Your task to perform on an android device: Open CNN.com Image 0: 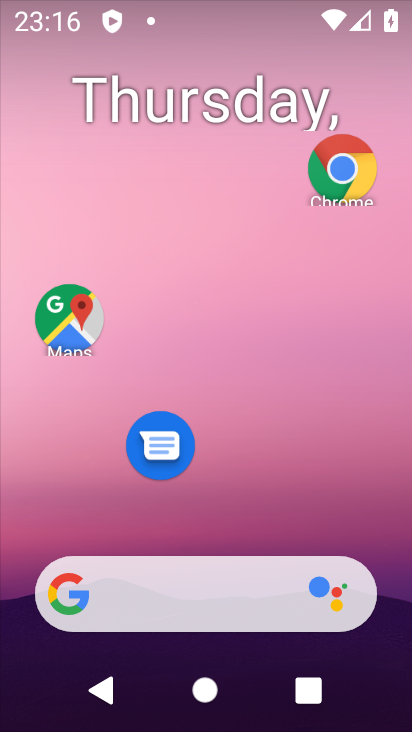
Step 0: click (256, 120)
Your task to perform on an android device: Open CNN.com Image 1: 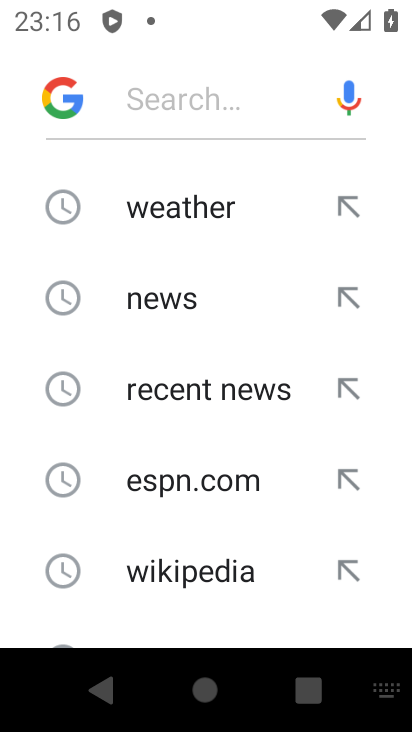
Step 1: drag from (145, 550) to (157, 126)
Your task to perform on an android device: Open CNN.com Image 2: 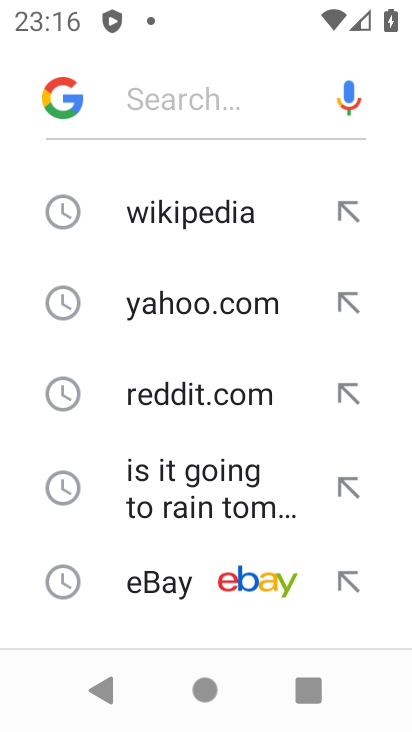
Step 2: drag from (219, 480) to (270, 98)
Your task to perform on an android device: Open CNN.com Image 3: 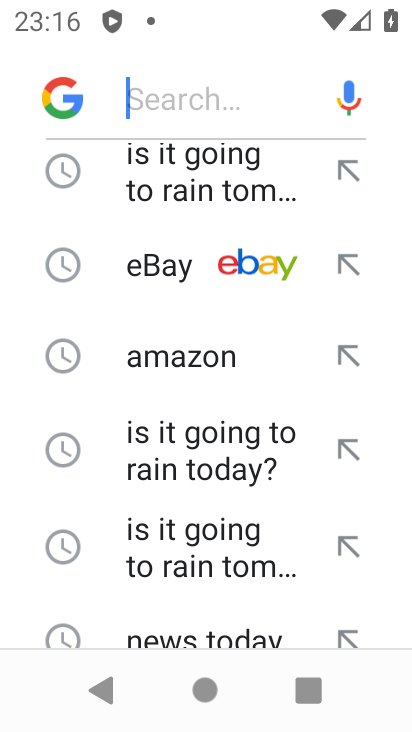
Step 3: drag from (174, 544) to (297, 111)
Your task to perform on an android device: Open CNN.com Image 4: 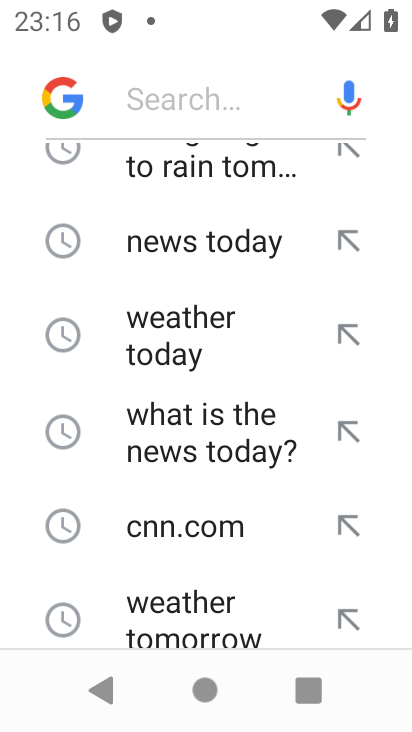
Step 4: drag from (197, 559) to (275, 148)
Your task to perform on an android device: Open CNN.com Image 5: 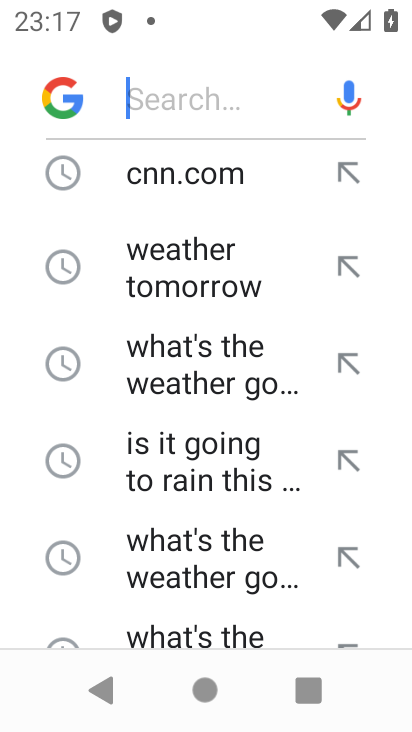
Step 5: click (172, 181)
Your task to perform on an android device: Open CNN.com Image 6: 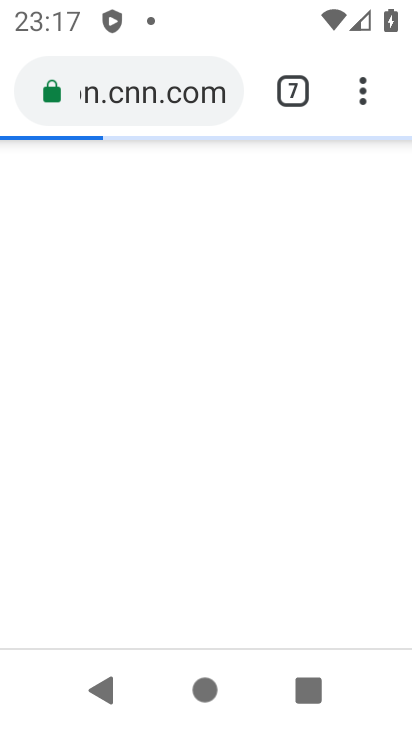
Step 6: task complete